Your task to perform on an android device: Open Youtube and go to the subscriptions tab Image 0: 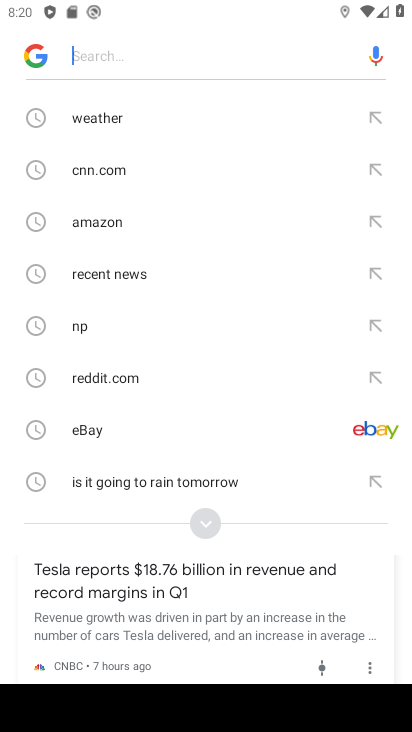
Step 0: press home button
Your task to perform on an android device: Open Youtube and go to the subscriptions tab Image 1: 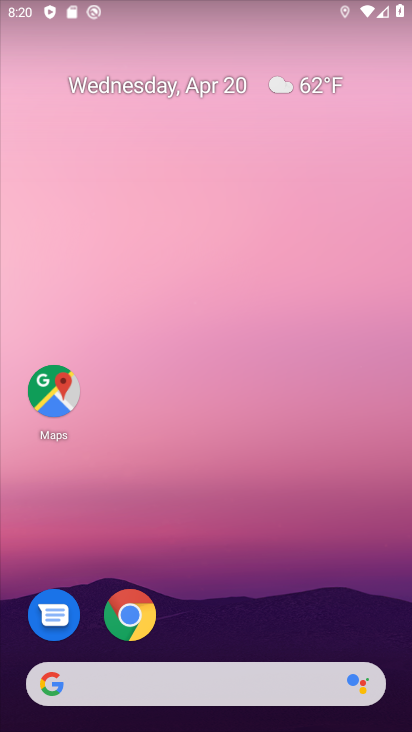
Step 1: drag from (219, 701) to (272, 120)
Your task to perform on an android device: Open Youtube and go to the subscriptions tab Image 2: 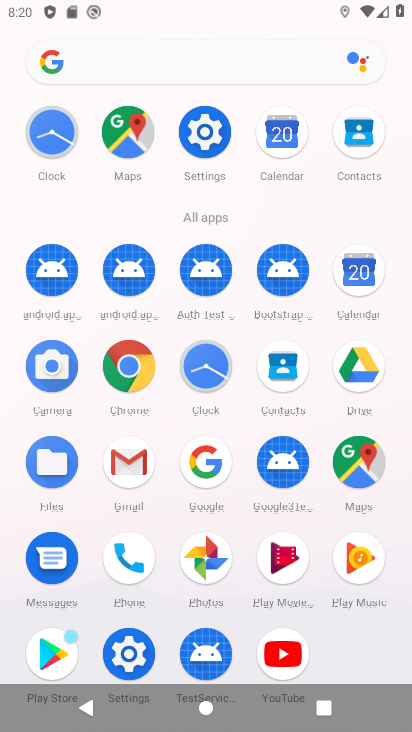
Step 2: click (285, 647)
Your task to perform on an android device: Open Youtube and go to the subscriptions tab Image 3: 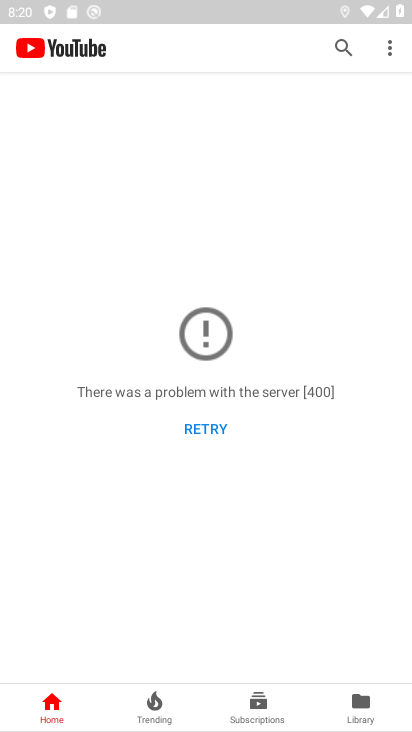
Step 3: click (264, 696)
Your task to perform on an android device: Open Youtube and go to the subscriptions tab Image 4: 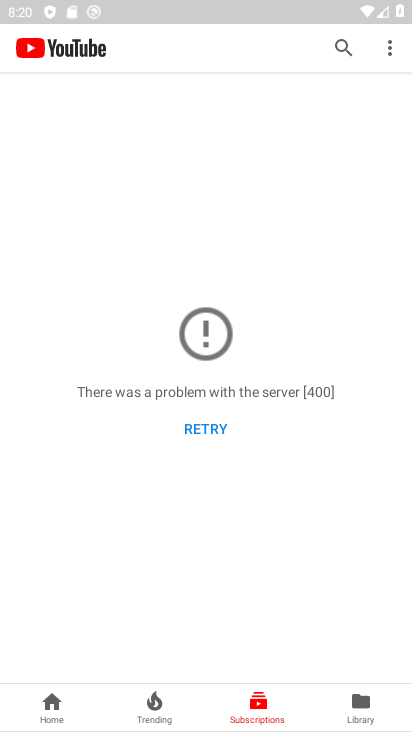
Step 4: click (274, 699)
Your task to perform on an android device: Open Youtube and go to the subscriptions tab Image 5: 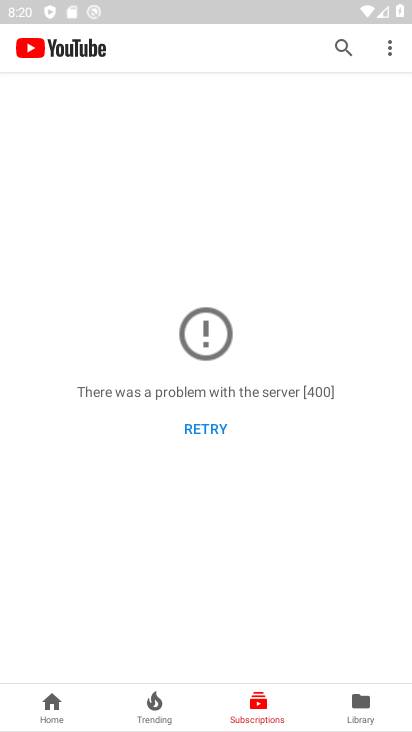
Step 5: task complete